Your task to perform on an android device: turn on location history Image 0: 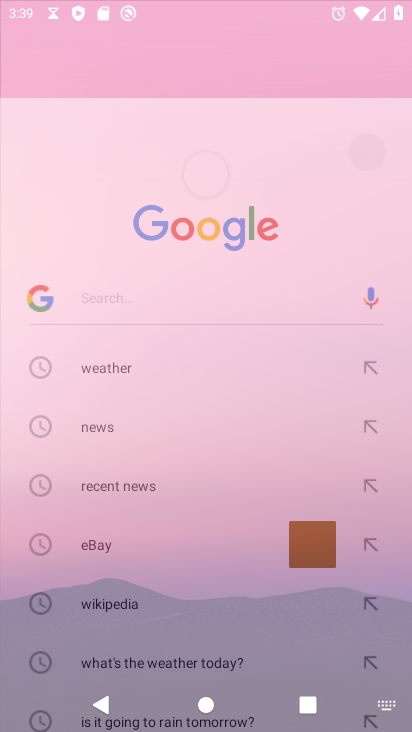
Step 0: press back button
Your task to perform on an android device: turn on location history Image 1: 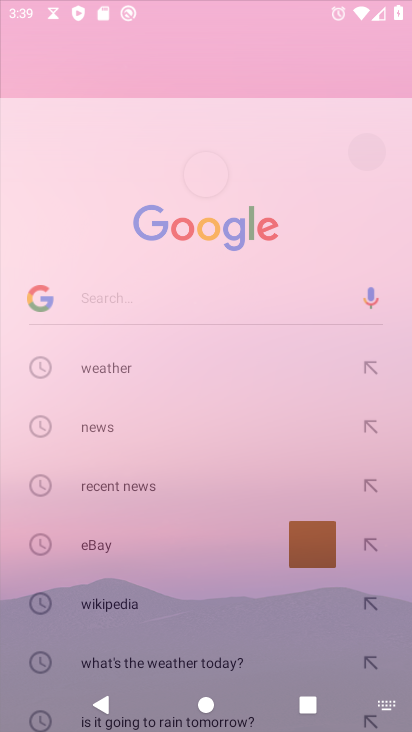
Step 1: press home button
Your task to perform on an android device: turn on location history Image 2: 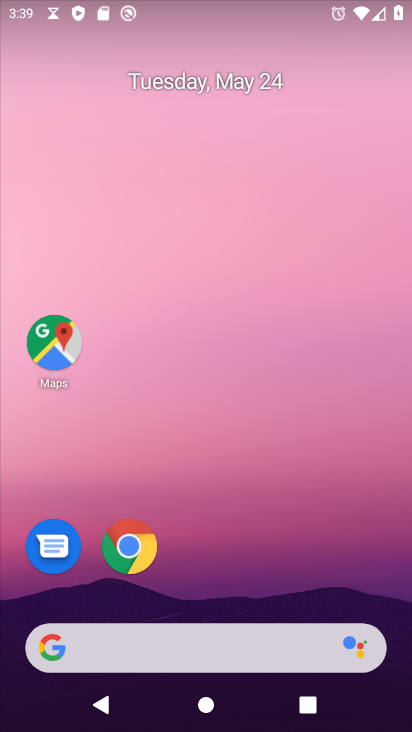
Step 2: click (277, 396)
Your task to perform on an android device: turn on location history Image 3: 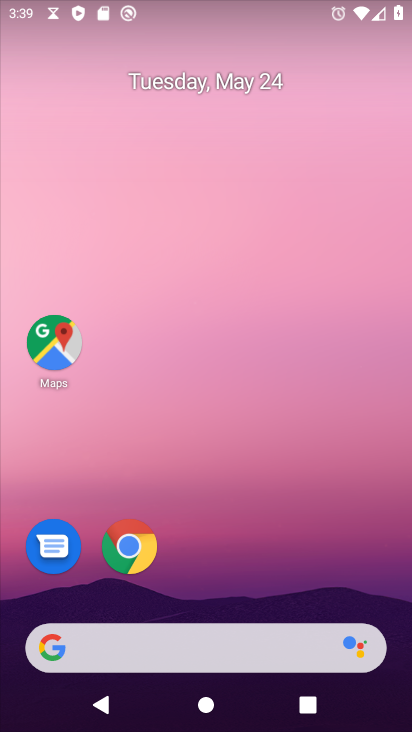
Step 3: drag from (278, 670) to (272, 0)
Your task to perform on an android device: turn on location history Image 4: 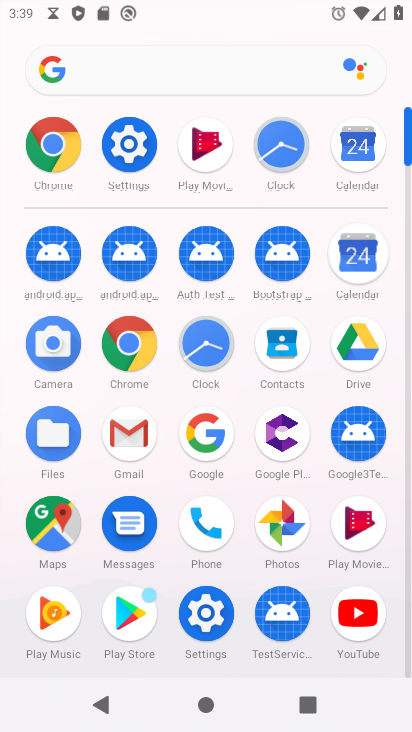
Step 4: click (132, 148)
Your task to perform on an android device: turn on location history Image 5: 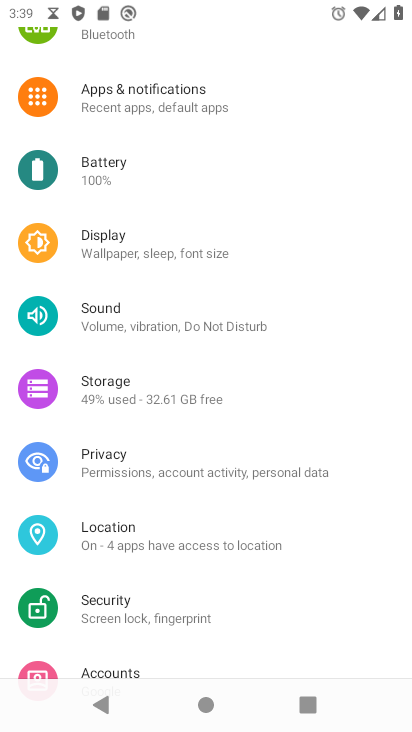
Step 5: click (115, 543)
Your task to perform on an android device: turn on location history Image 6: 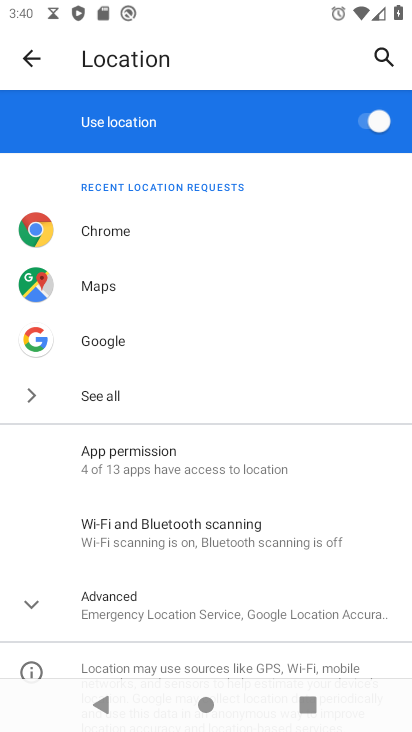
Step 6: click (103, 603)
Your task to perform on an android device: turn on location history Image 7: 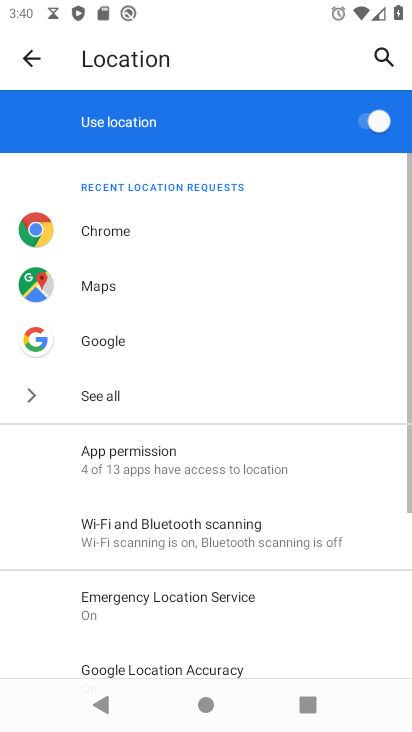
Step 7: drag from (155, 582) to (117, 311)
Your task to perform on an android device: turn on location history Image 8: 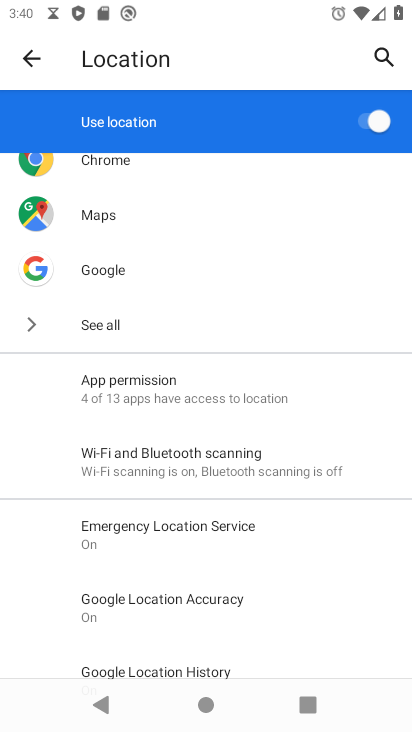
Step 8: drag from (211, 529) to (275, 265)
Your task to perform on an android device: turn on location history Image 9: 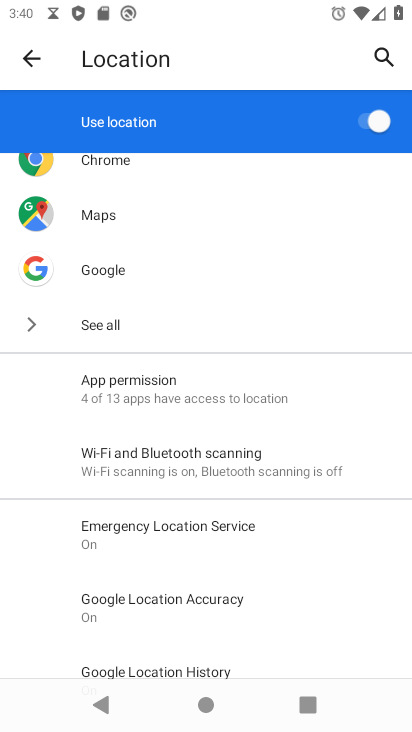
Step 9: drag from (216, 284) to (221, 250)
Your task to perform on an android device: turn on location history Image 10: 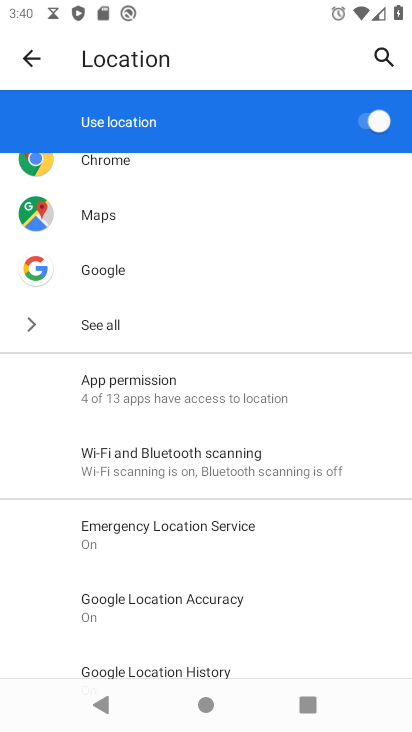
Step 10: drag from (165, 568) to (152, 145)
Your task to perform on an android device: turn on location history Image 11: 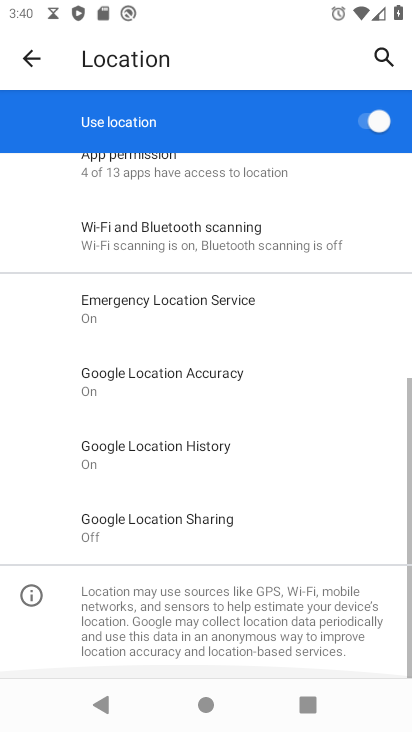
Step 11: drag from (192, 472) to (214, 46)
Your task to perform on an android device: turn on location history Image 12: 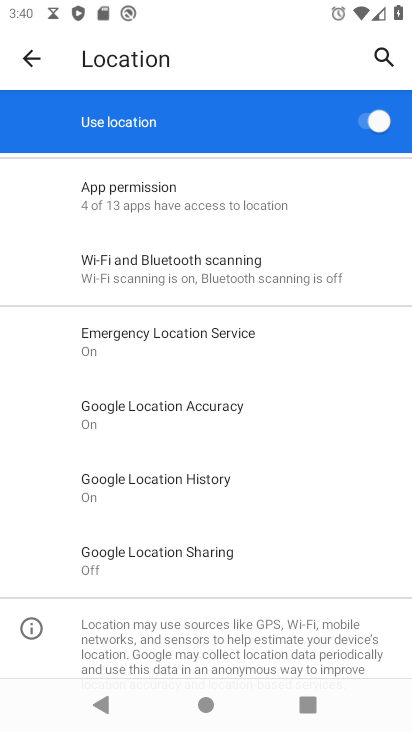
Step 12: click (179, 487)
Your task to perform on an android device: turn on location history Image 13: 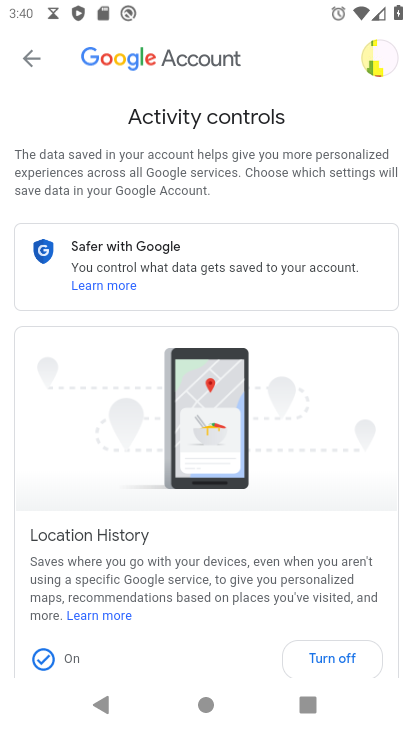
Step 13: task complete